Your task to perform on an android device: turn on wifi Image 0: 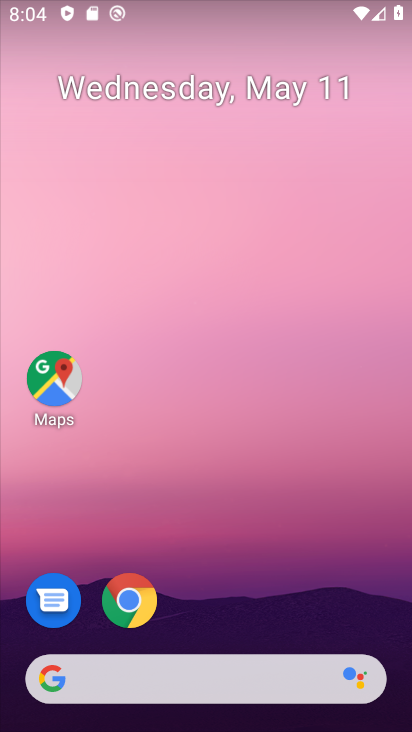
Step 0: drag from (258, 591) to (271, 18)
Your task to perform on an android device: turn on wifi Image 1: 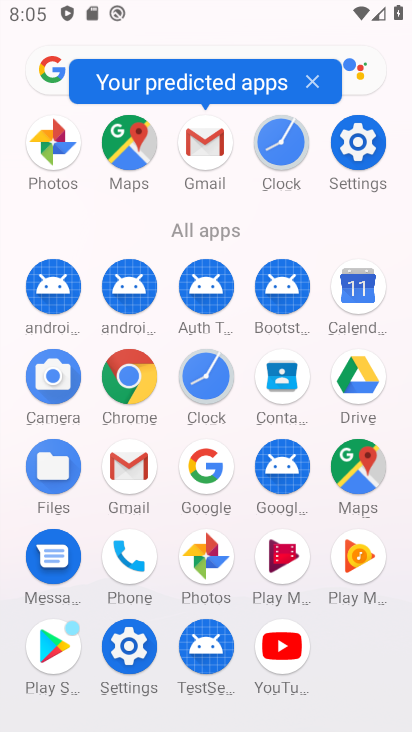
Step 1: click (358, 142)
Your task to perform on an android device: turn on wifi Image 2: 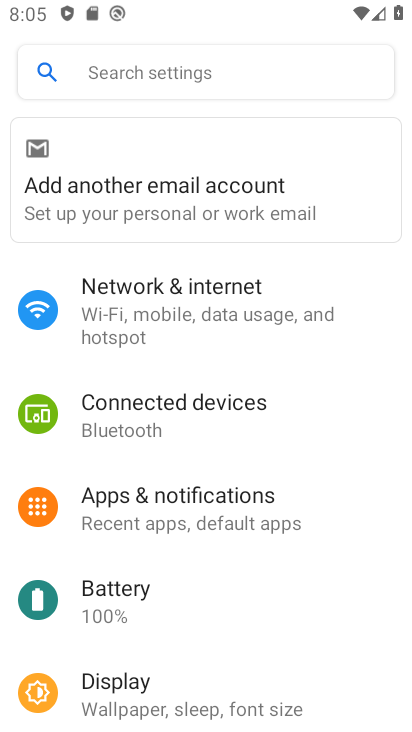
Step 2: click (234, 286)
Your task to perform on an android device: turn on wifi Image 3: 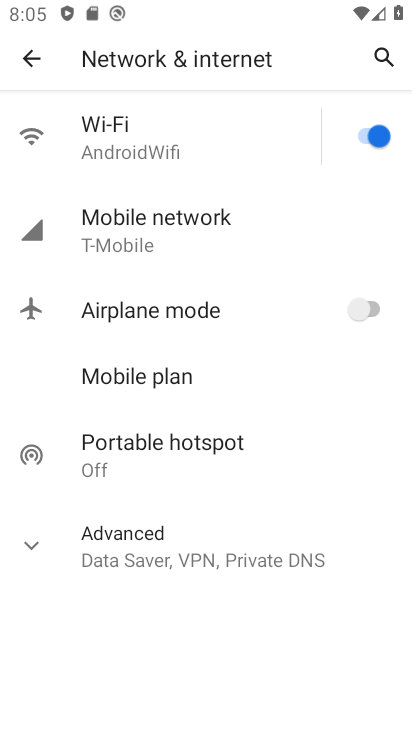
Step 3: task complete